Your task to perform on an android device: Open CNN.com Image 0: 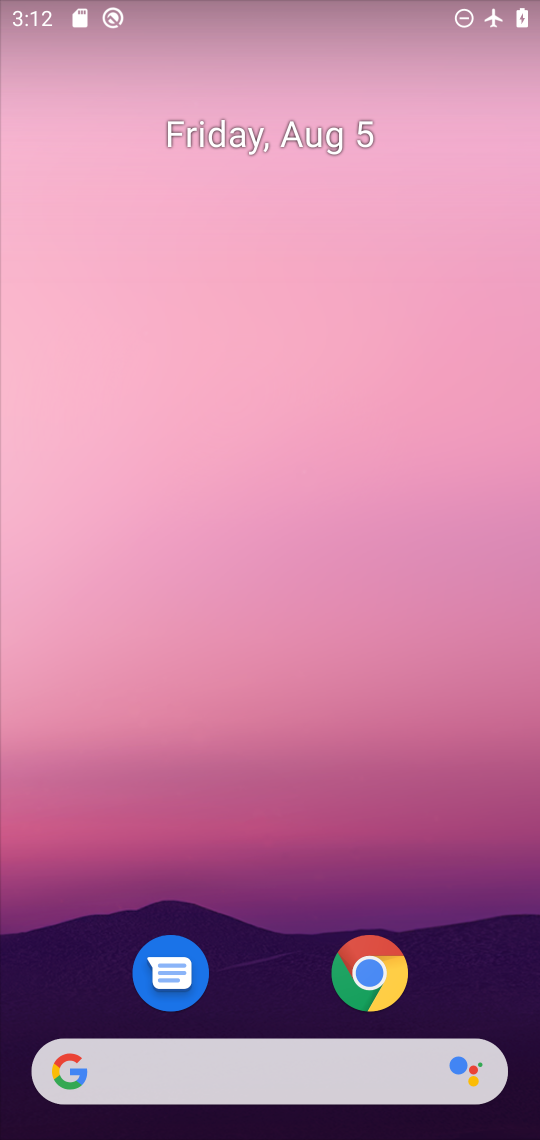
Step 0: click (370, 966)
Your task to perform on an android device: Open CNN.com Image 1: 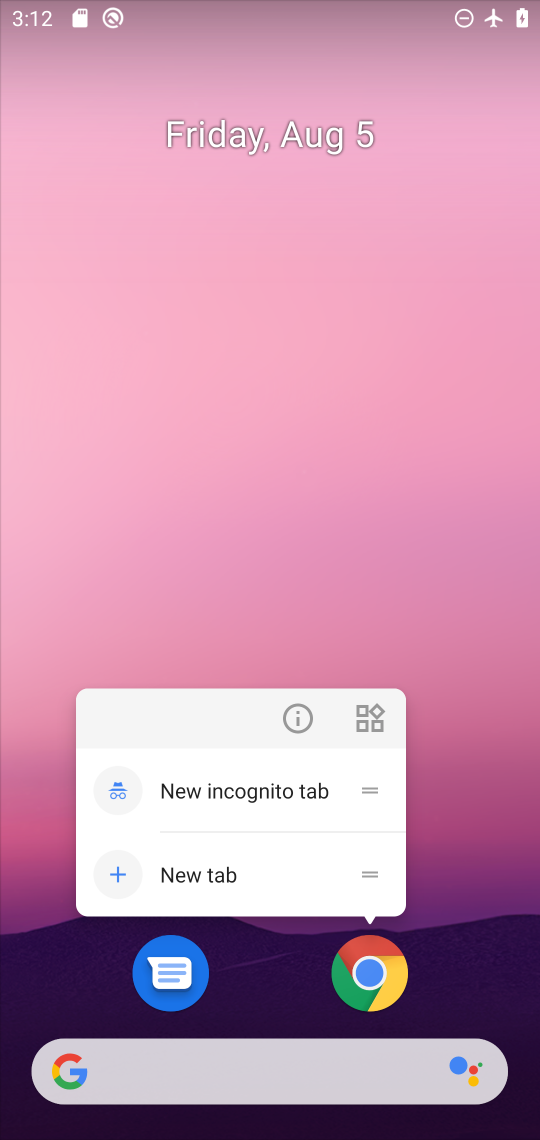
Step 1: click (376, 965)
Your task to perform on an android device: Open CNN.com Image 2: 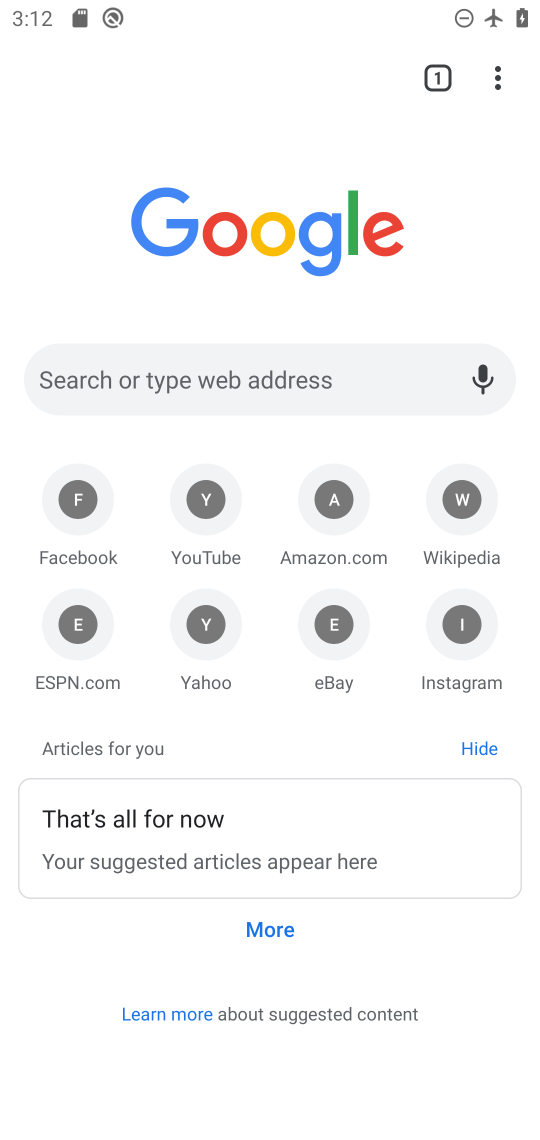
Step 2: click (243, 320)
Your task to perform on an android device: Open CNN.com Image 3: 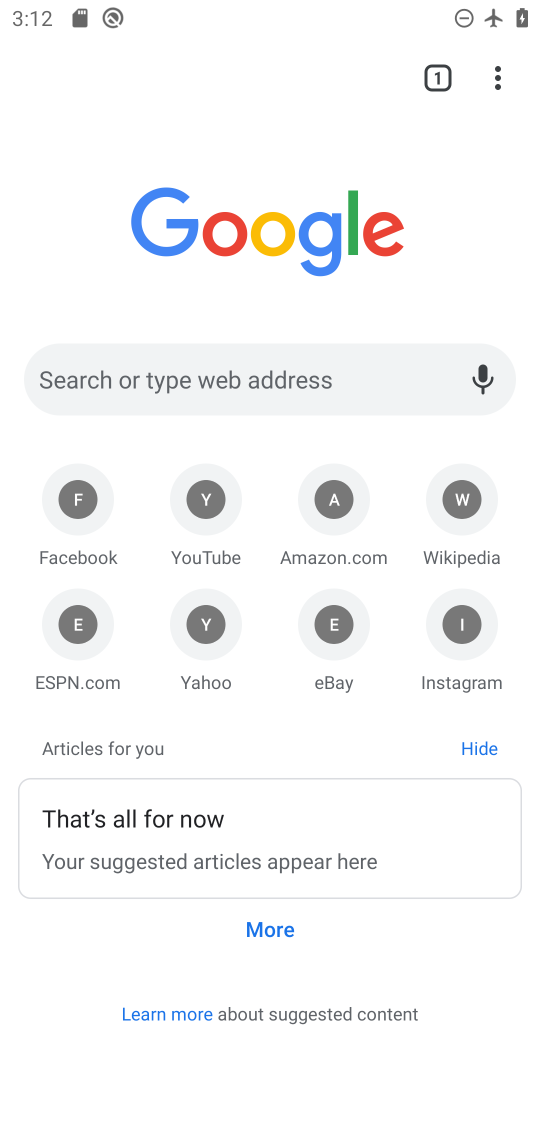
Step 3: click (245, 333)
Your task to perform on an android device: Open CNN.com Image 4: 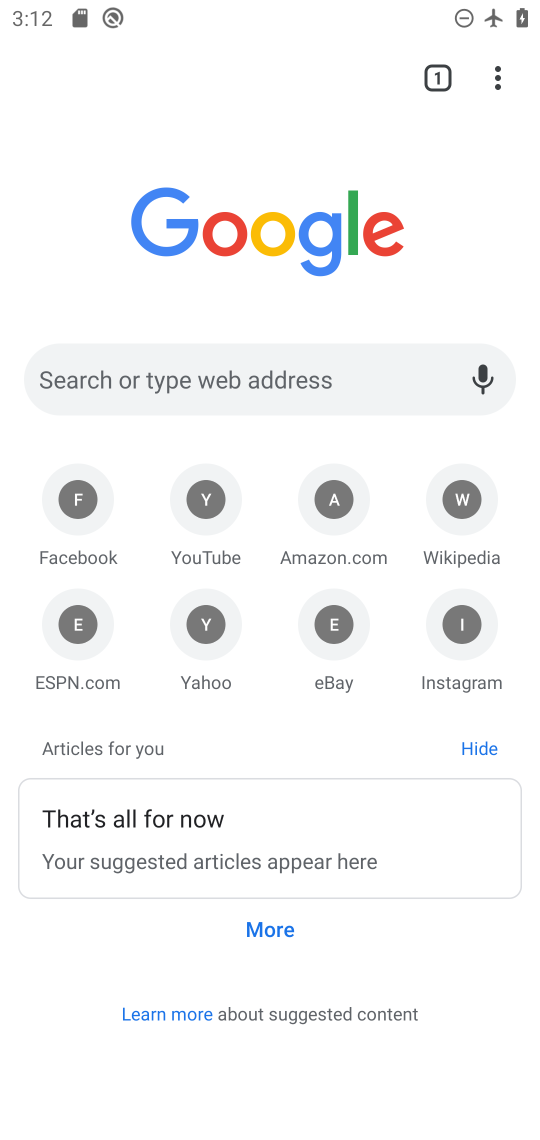
Step 4: click (174, 358)
Your task to perform on an android device: Open CNN.com Image 5: 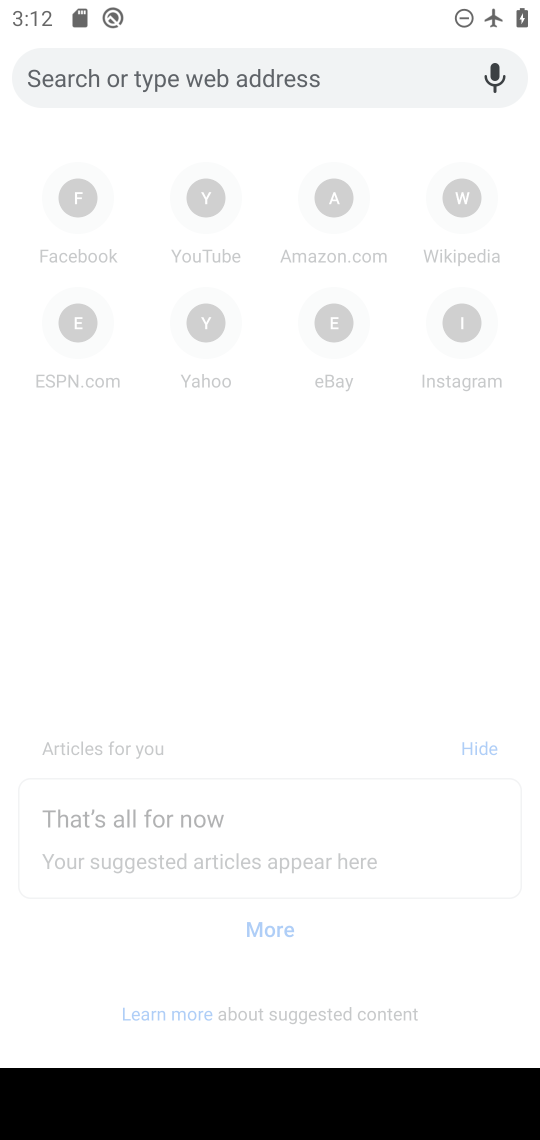
Step 5: type "CNN.com"
Your task to perform on an android device: Open CNN.com Image 6: 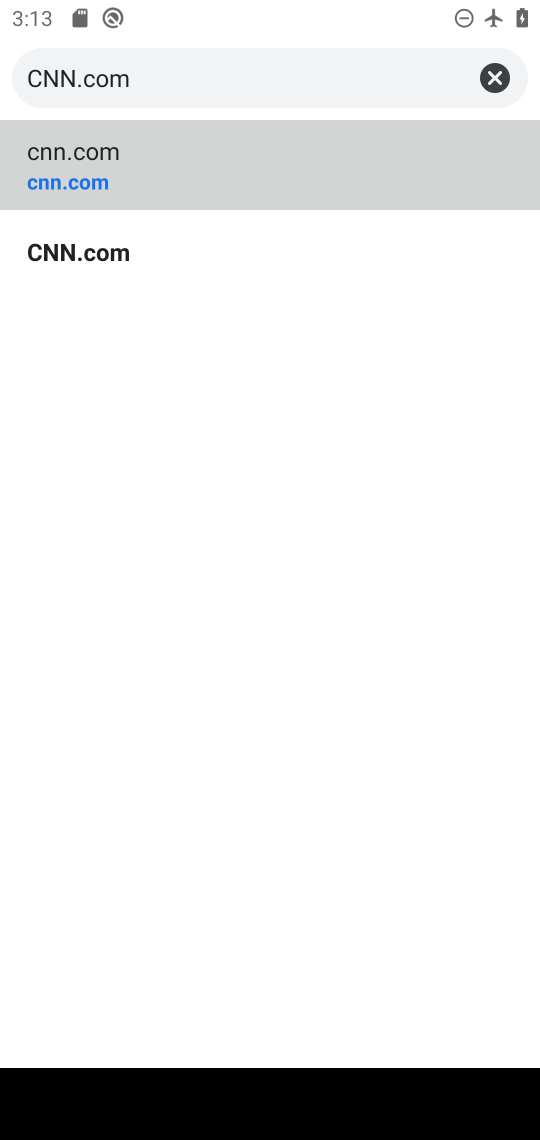
Step 6: click (67, 152)
Your task to perform on an android device: Open CNN.com Image 7: 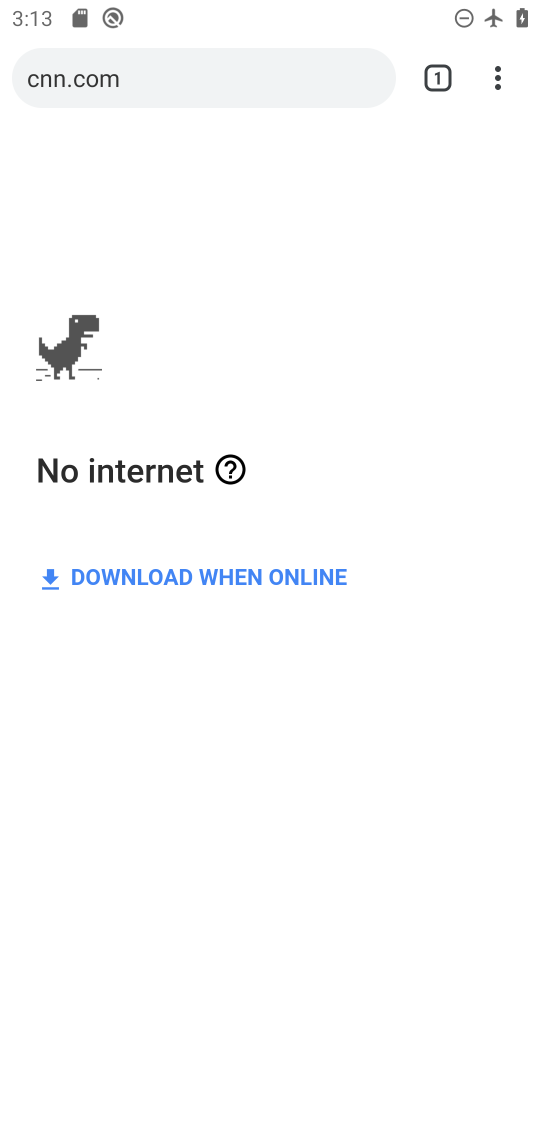
Step 7: task complete